Your task to perform on an android device: Go to display settings Image 0: 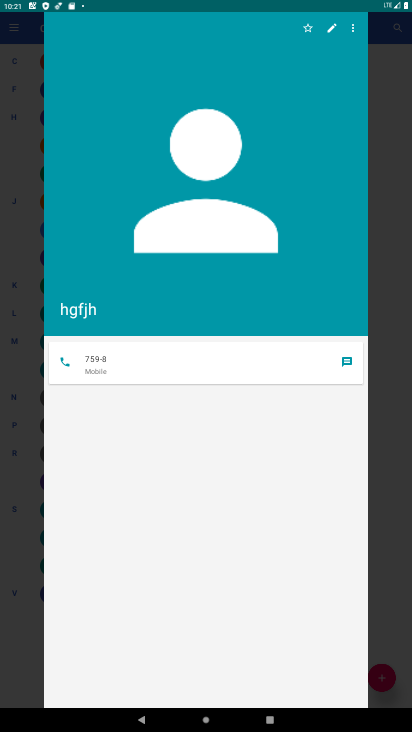
Step 0: press home button
Your task to perform on an android device: Go to display settings Image 1: 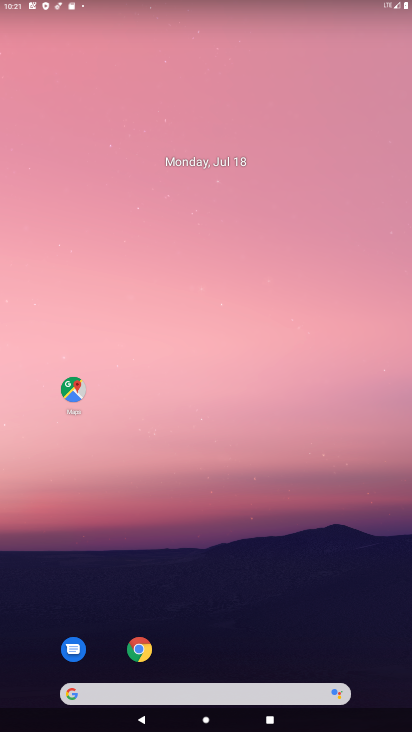
Step 1: drag from (170, 722) to (256, 4)
Your task to perform on an android device: Go to display settings Image 2: 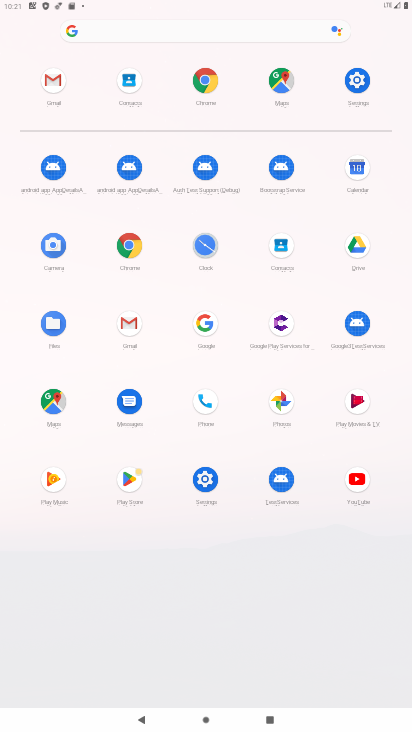
Step 2: click (361, 87)
Your task to perform on an android device: Go to display settings Image 3: 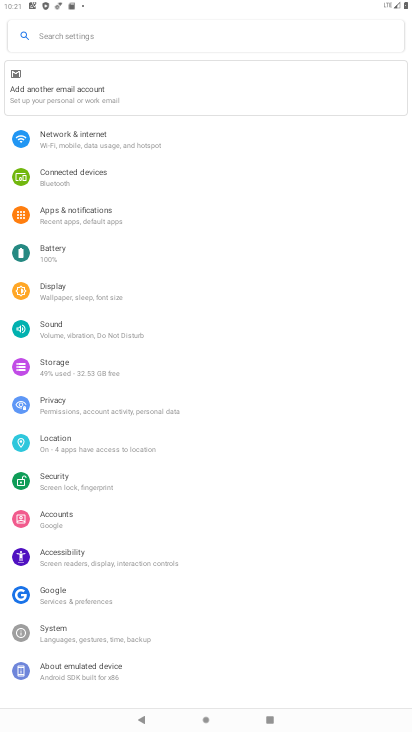
Step 3: click (128, 295)
Your task to perform on an android device: Go to display settings Image 4: 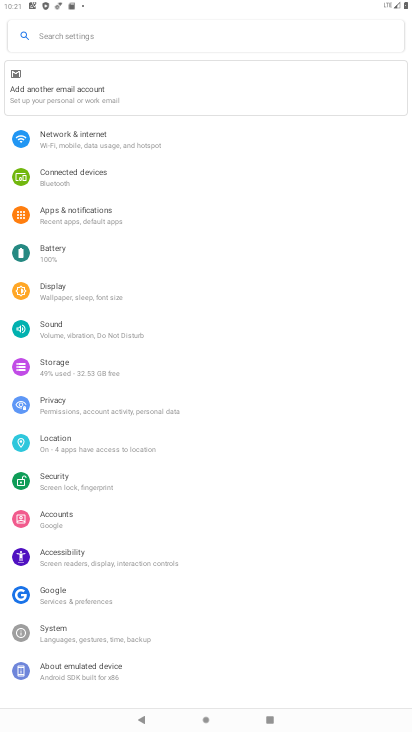
Step 4: click (128, 295)
Your task to perform on an android device: Go to display settings Image 5: 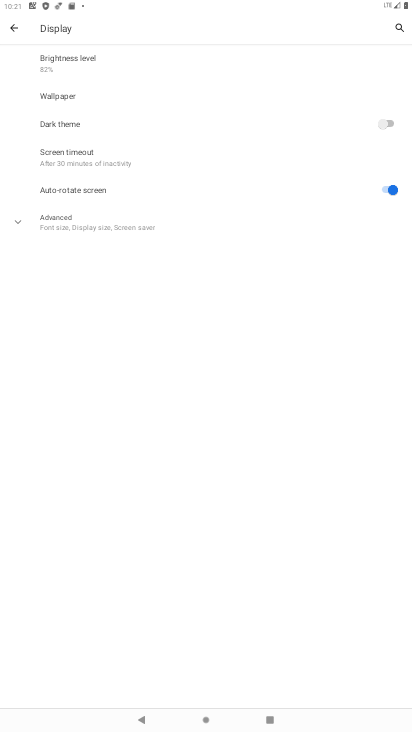
Step 5: task complete